Your task to perform on an android device: change the upload size in google photos Image 0: 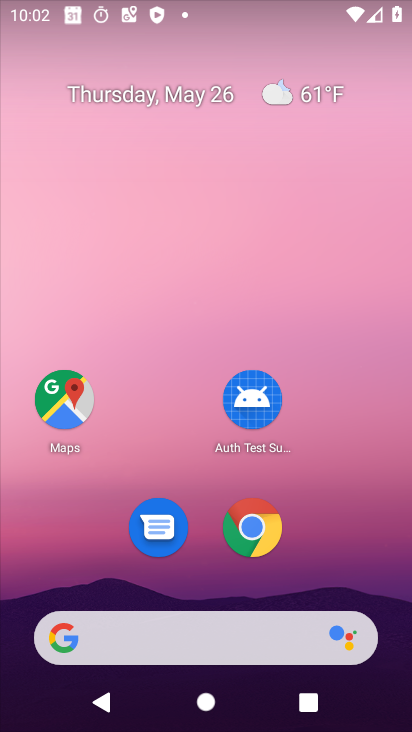
Step 0: drag from (362, 419) to (351, 60)
Your task to perform on an android device: change the upload size in google photos Image 1: 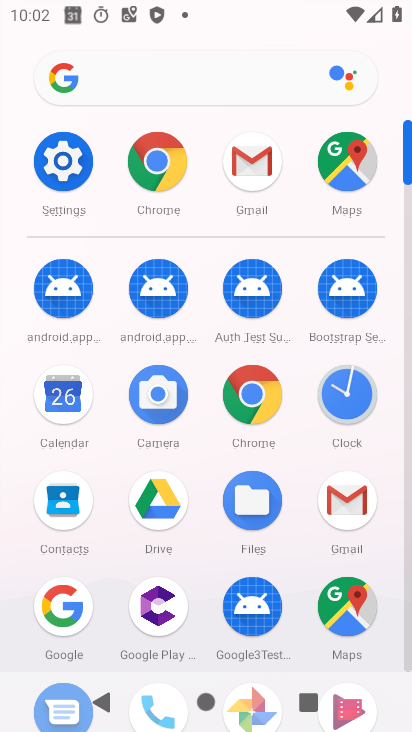
Step 1: drag from (390, 596) to (337, 292)
Your task to perform on an android device: change the upload size in google photos Image 2: 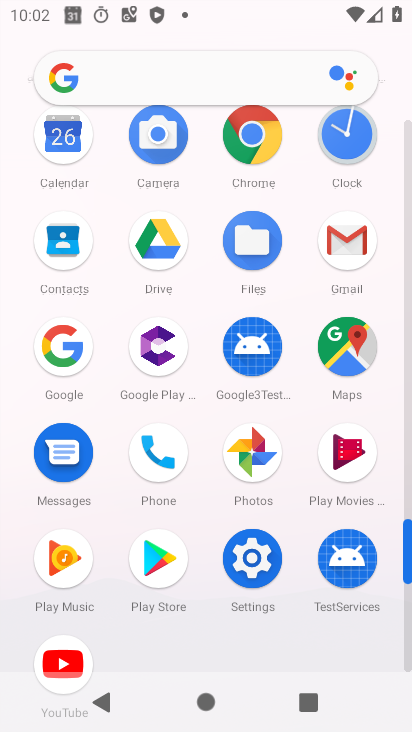
Step 2: click (248, 467)
Your task to perform on an android device: change the upload size in google photos Image 3: 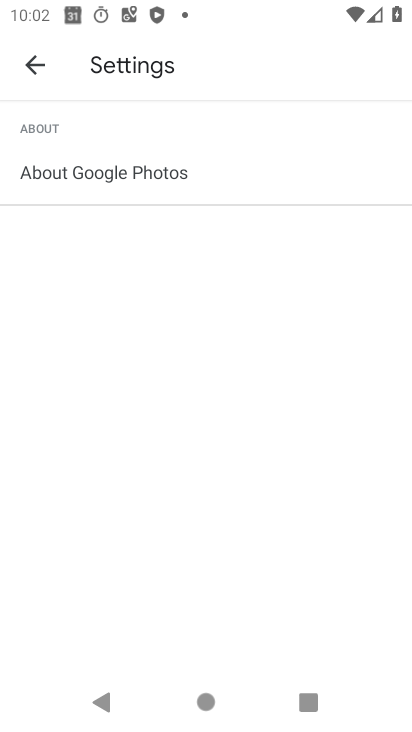
Step 3: click (38, 56)
Your task to perform on an android device: change the upload size in google photos Image 4: 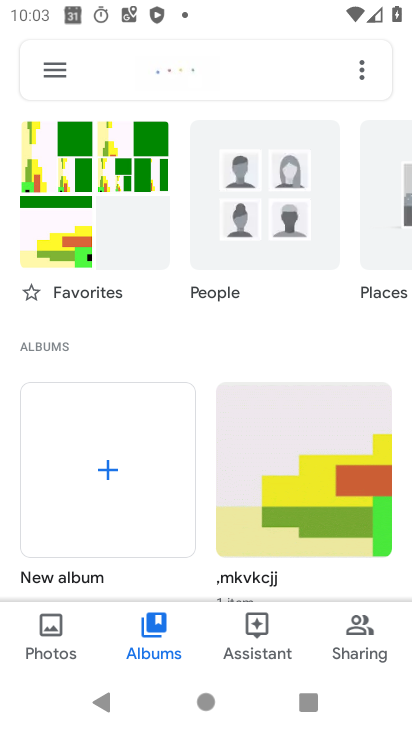
Step 4: click (38, 56)
Your task to perform on an android device: change the upload size in google photos Image 5: 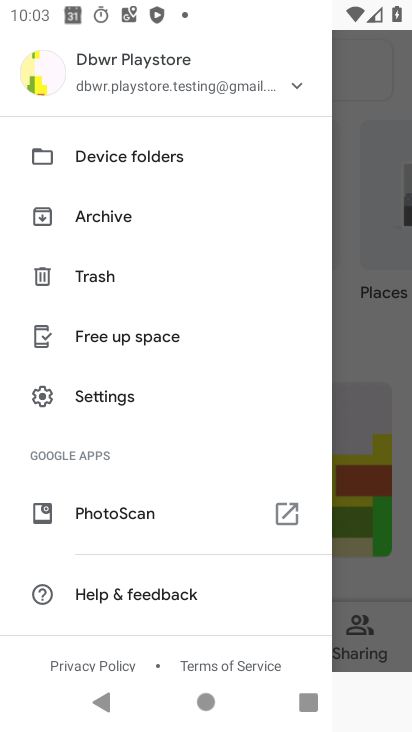
Step 5: drag from (183, 599) to (275, 187)
Your task to perform on an android device: change the upload size in google photos Image 6: 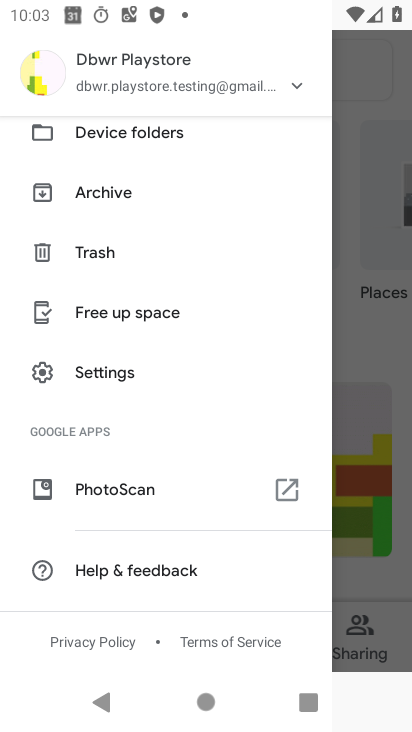
Step 6: drag from (133, 613) to (127, 214)
Your task to perform on an android device: change the upload size in google photos Image 7: 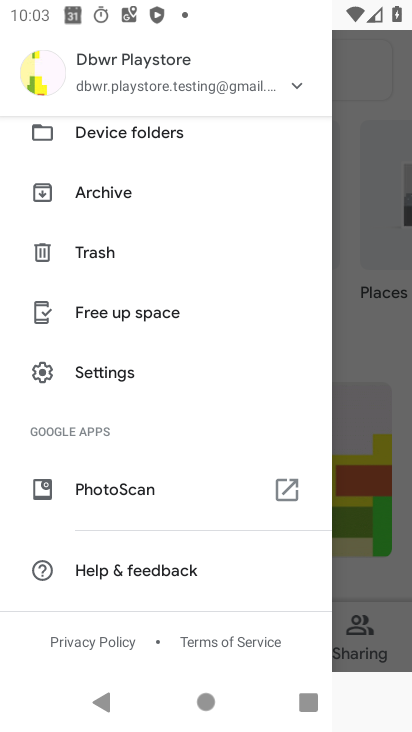
Step 7: click (90, 378)
Your task to perform on an android device: change the upload size in google photos Image 8: 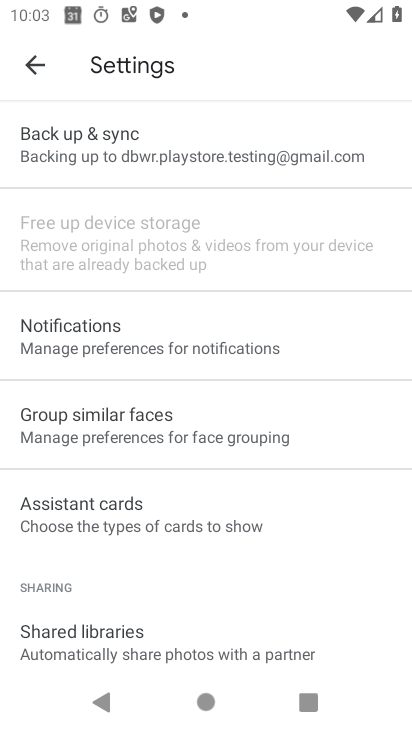
Step 8: drag from (164, 589) to (172, 135)
Your task to perform on an android device: change the upload size in google photos Image 9: 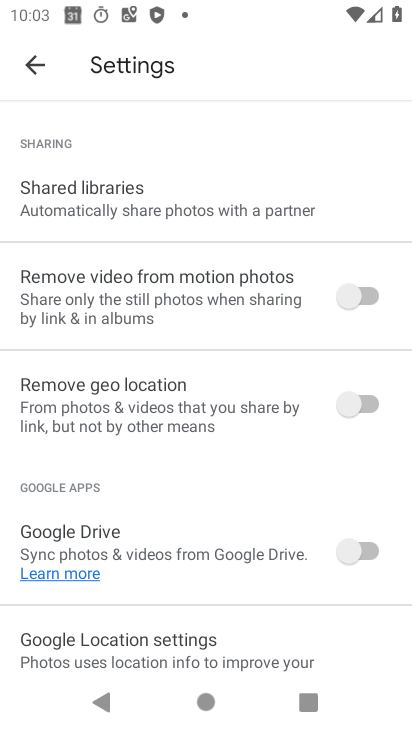
Step 9: drag from (142, 573) to (171, 90)
Your task to perform on an android device: change the upload size in google photos Image 10: 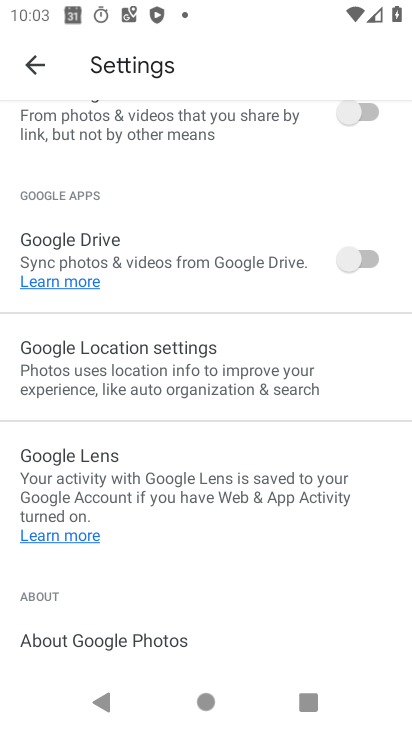
Step 10: drag from (143, 369) to (225, 654)
Your task to perform on an android device: change the upload size in google photos Image 11: 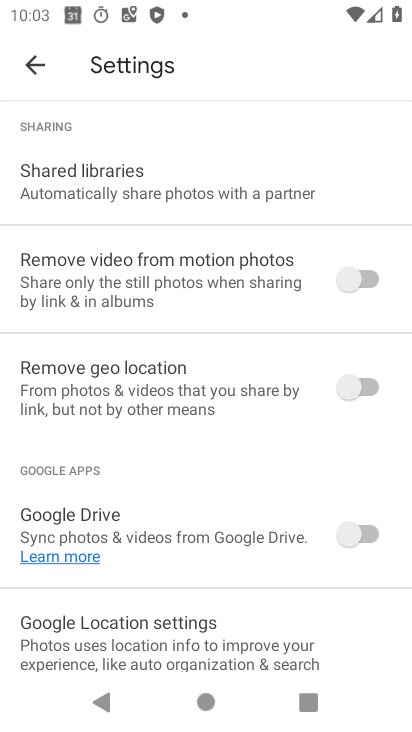
Step 11: drag from (185, 241) to (189, 700)
Your task to perform on an android device: change the upload size in google photos Image 12: 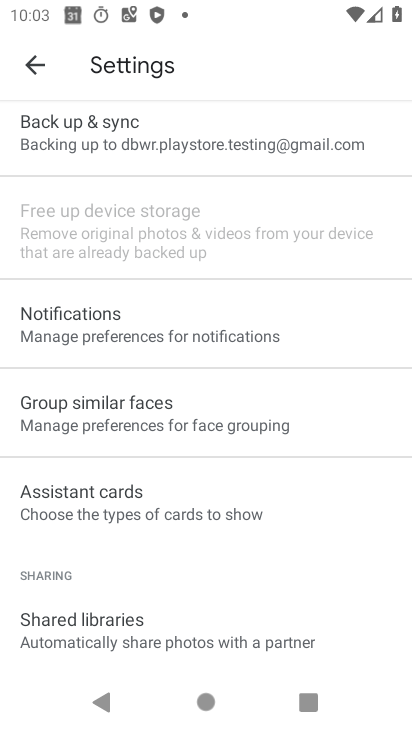
Step 12: drag from (206, 230) to (191, 662)
Your task to perform on an android device: change the upload size in google photos Image 13: 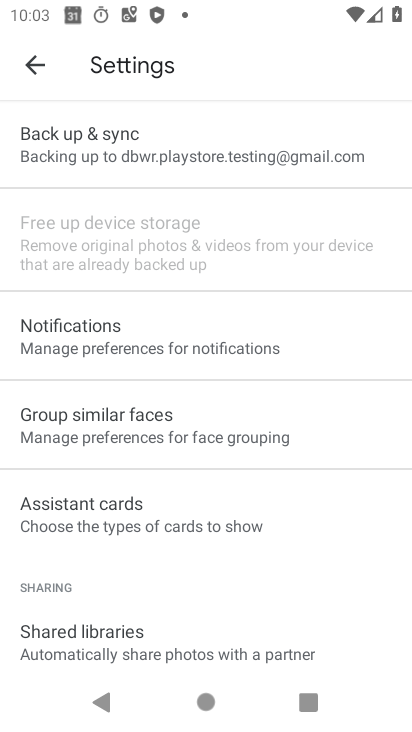
Step 13: click (147, 172)
Your task to perform on an android device: change the upload size in google photos Image 14: 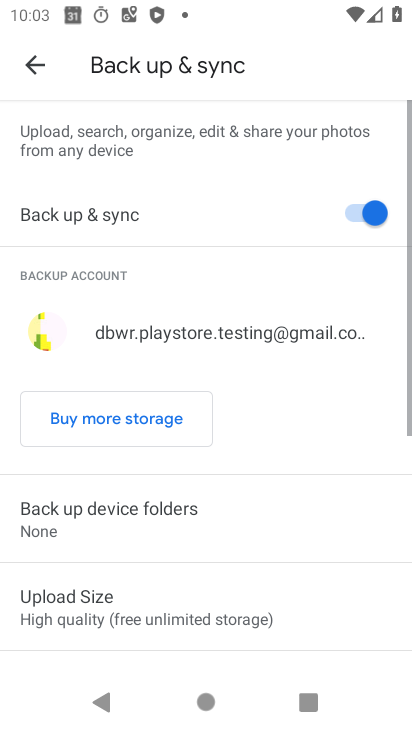
Step 14: drag from (222, 603) to (184, 137)
Your task to perform on an android device: change the upload size in google photos Image 15: 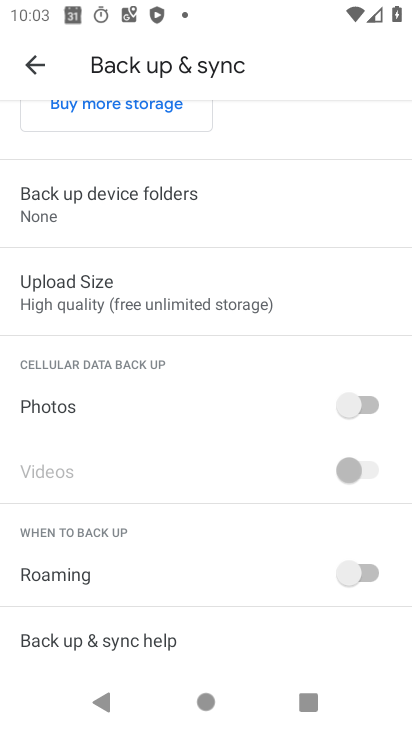
Step 15: drag from (186, 156) to (207, 644)
Your task to perform on an android device: change the upload size in google photos Image 16: 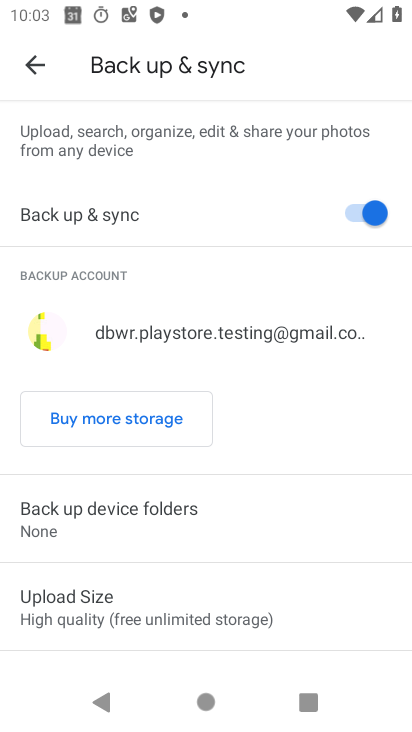
Step 16: click (105, 602)
Your task to perform on an android device: change the upload size in google photos Image 17: 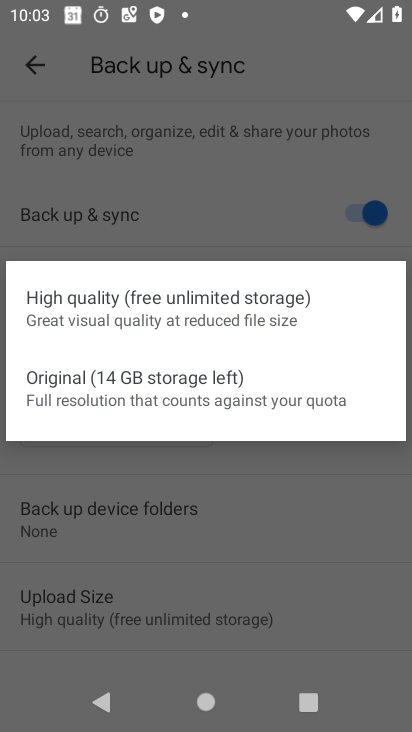
Step 17: click (133, 403)
Your task to perform on an android device: change the upload size in google photos Image 18: 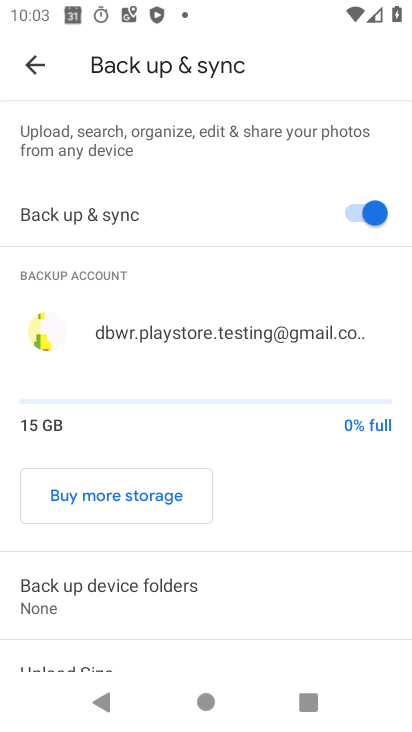
Step 18: task complete